Your task to perform on an android device: open app "Booking.com: Hotels and more" Image 0: 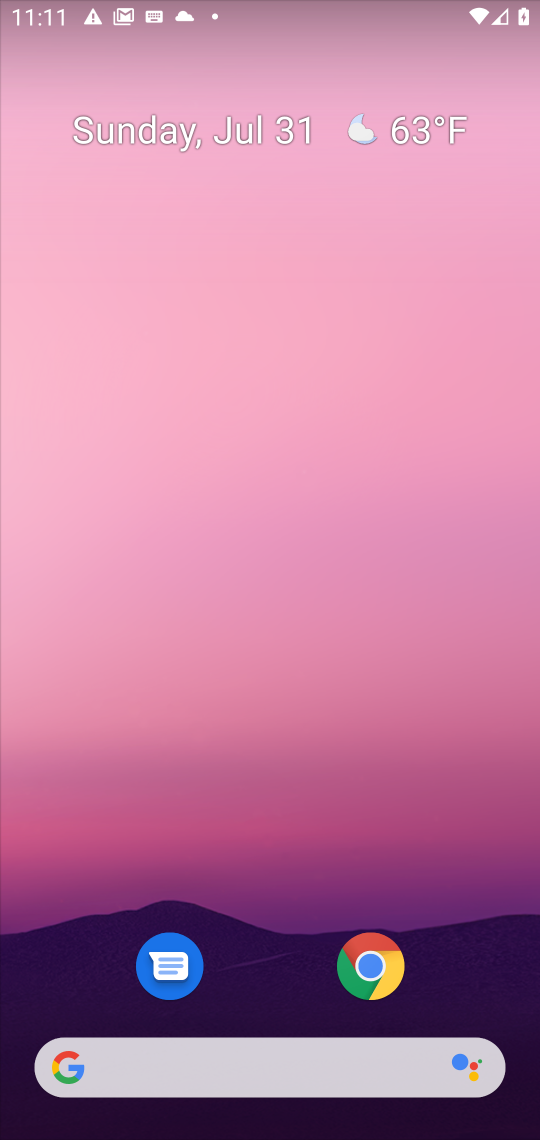
Step 0: drag from (261, 934) to (224, 98)
Your task to perform on an android device: open app "Booking.com: Hotels and more" Image 1: 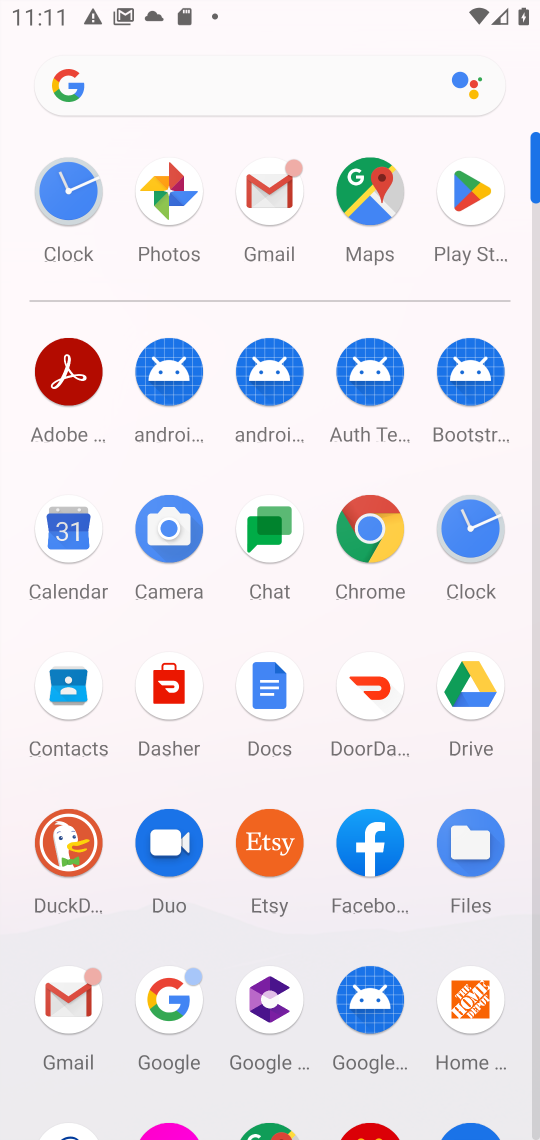
Step 1: click (482, 236)
Your task to perform on an android device: open app "Booking.com: Hotels and more" Image 2: 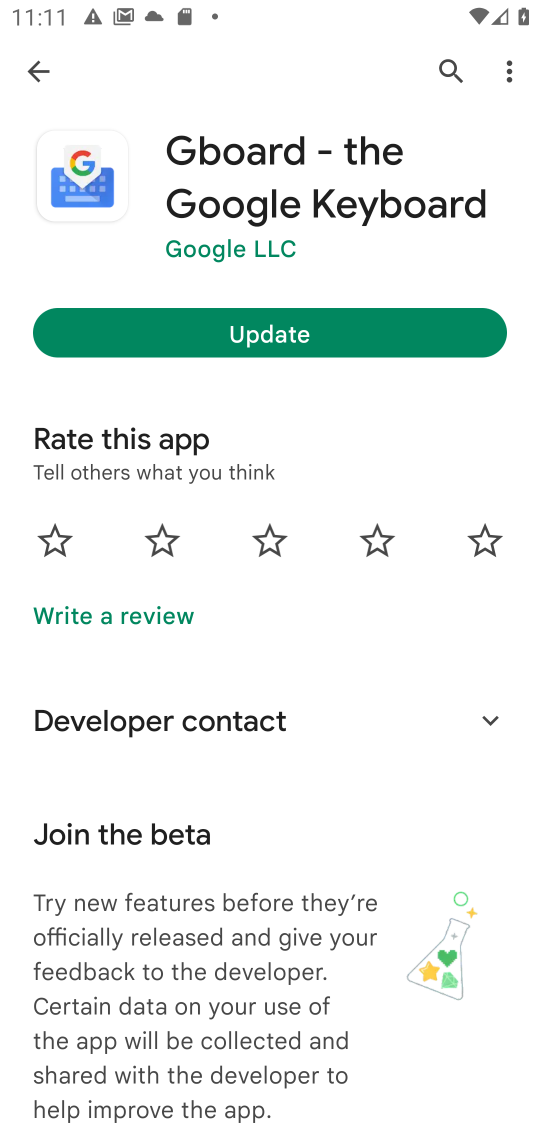
Step 2: click (48, 76)
Your task to perform on an android device: open app "Booking.com: Hotels and more" Image 3: 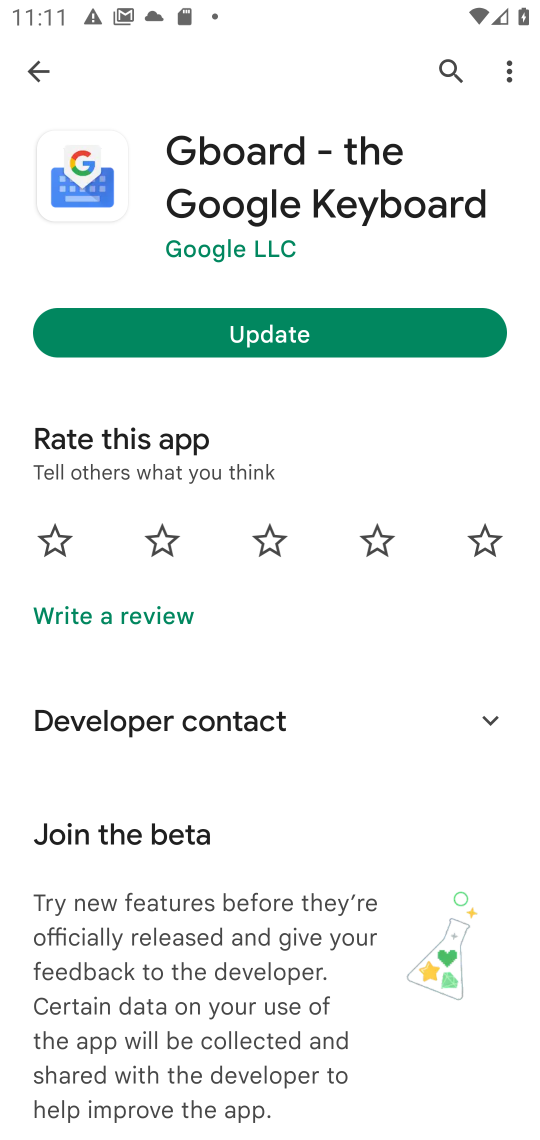
Step 3: click (39, 67)
Your task to perform on an android device: open app "Booking.com: Hotels and more" Image 4: 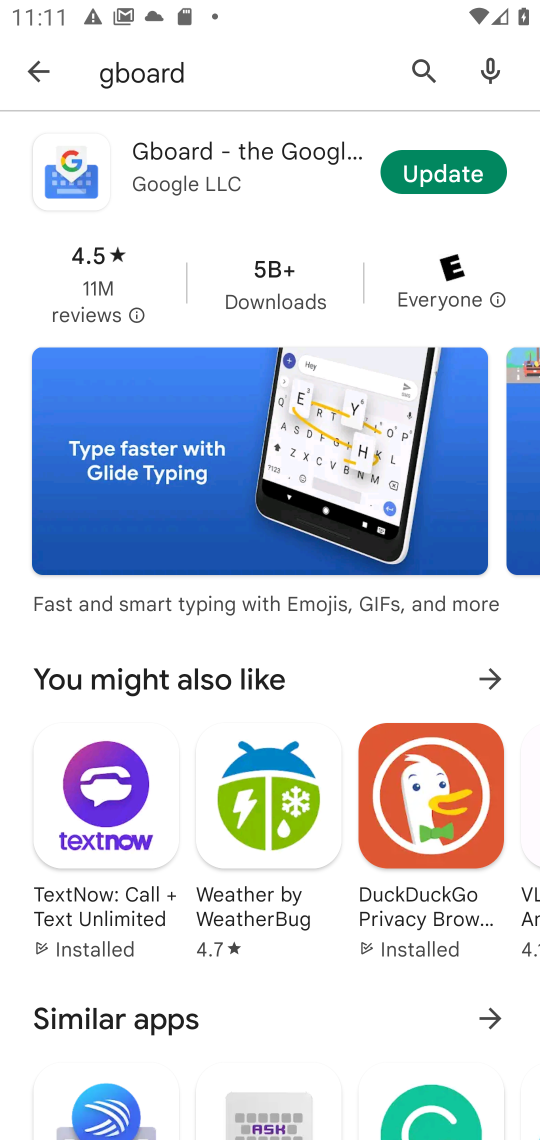
Step 4: click (184, 67)
Your task to perform on an android device: open app "Booking.com: Hotels and more" Image 5: 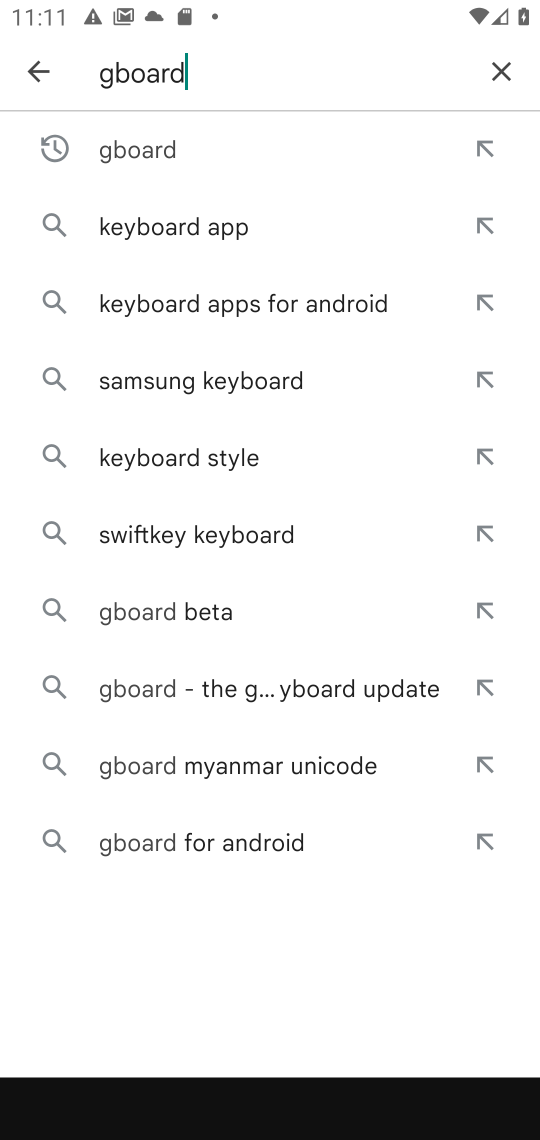
Step 5: click (495, 80)
Your task to perform on an android device: open app "Booking.com: Hotels and more" Image 6: 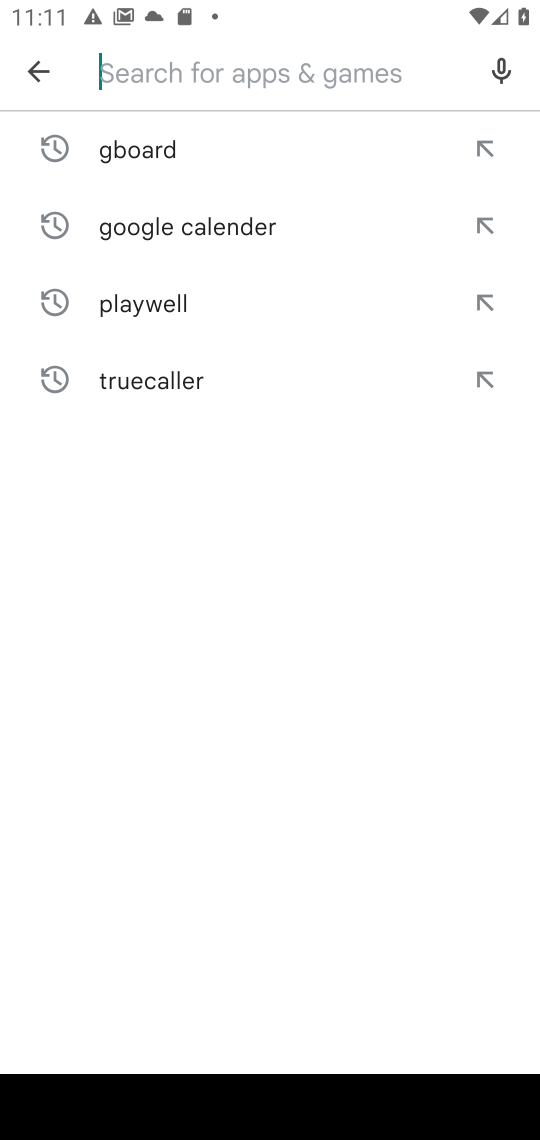
Step 6: type "Booking.com"
Your task to perform on an android device: open app "Booking.com: Hotels and more" Image 7: 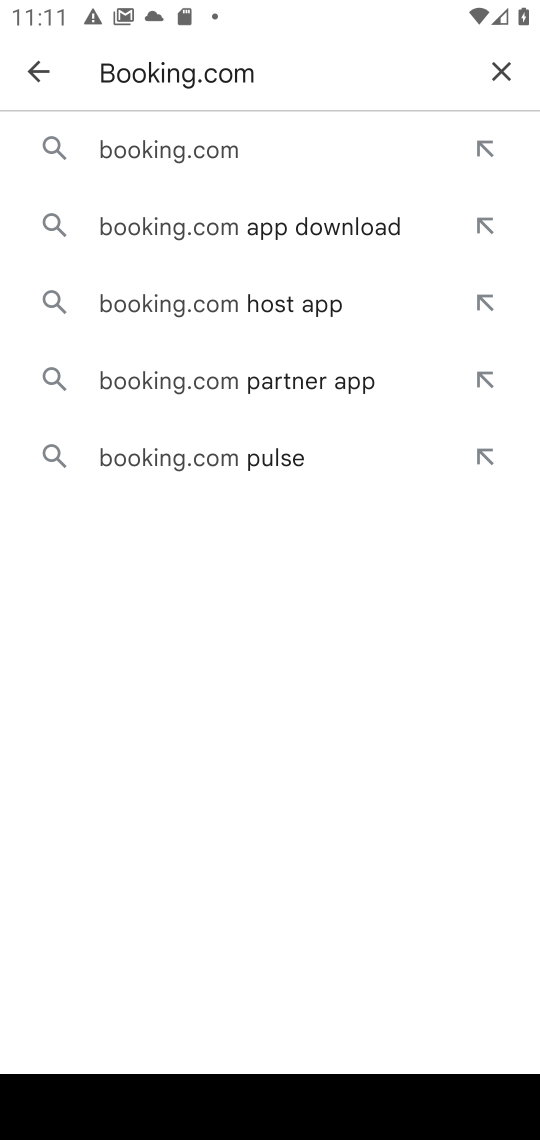
Step 7: click (195, 160)
Your task to perform on an android device: open app "Booking.com: Hotels and more" Image 8: 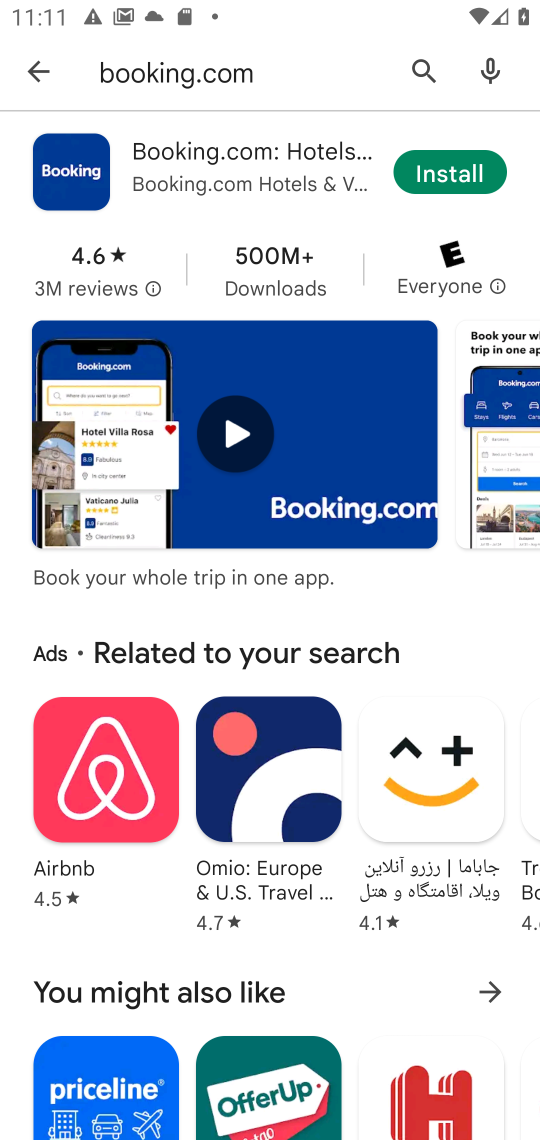
Step 8: task complete